Your task to perform on an android device: Is it going to rain this weekend? Image 0: 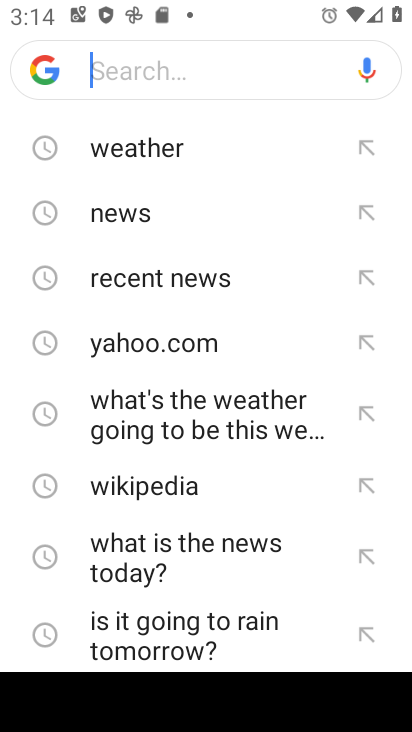
Step 0: press back button
Your task to perform on an android device: Is it going to rain this weekend? Image 1: 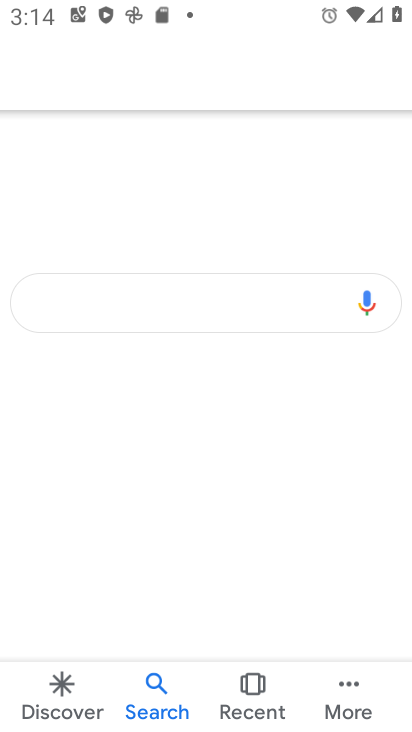
Step 1: click (200, 292)
Your task to perform on an android device: Is it going to rain this weekend? Image 2: 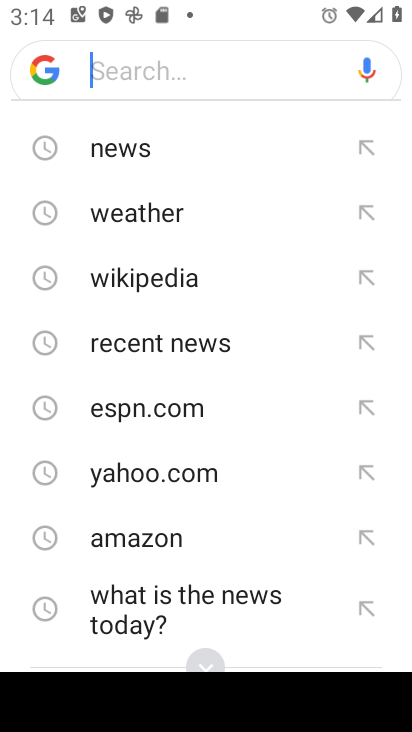
Step 2: click (202, 203)
Your task to perform on an android device: Is it going to rain this weekend? Image 3: 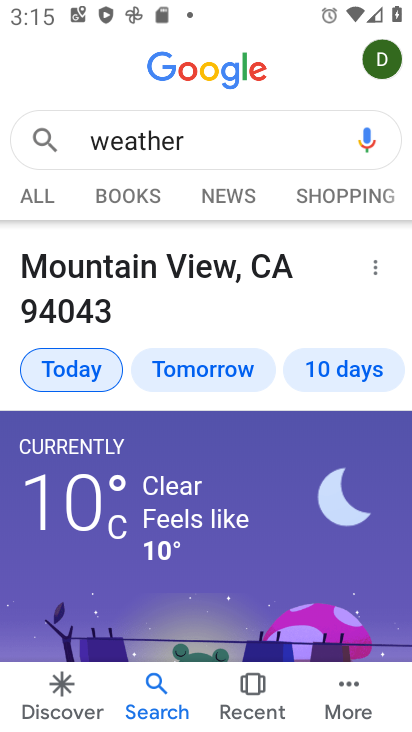
Step 3: click (355, 377)
Your task to perform on an android device: Is it going to rain this weekend? Image 4: 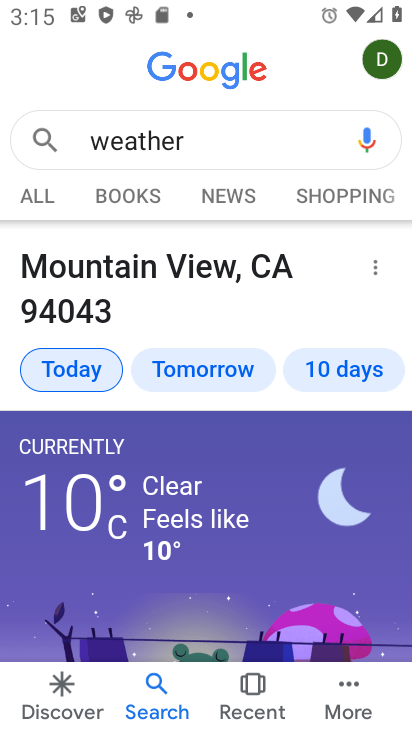
Step 4: click (304, 356)
Your task to perform on an android device: Is it going to rain this weekend? Image 5: 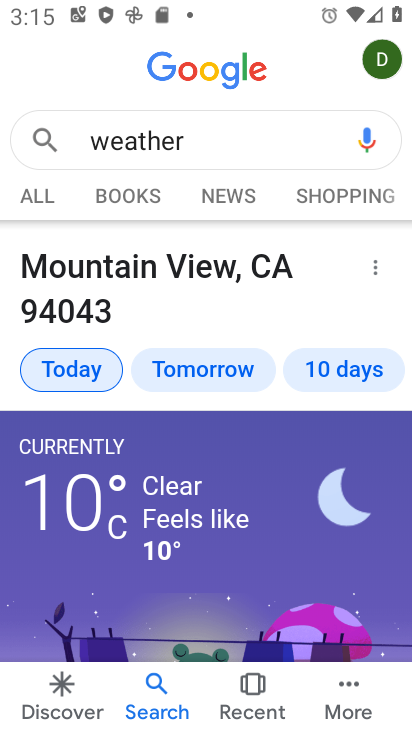
Step 5: click (304, 356)
Your task to perform on an android device: Is it going to rain this weekend? Image 6: 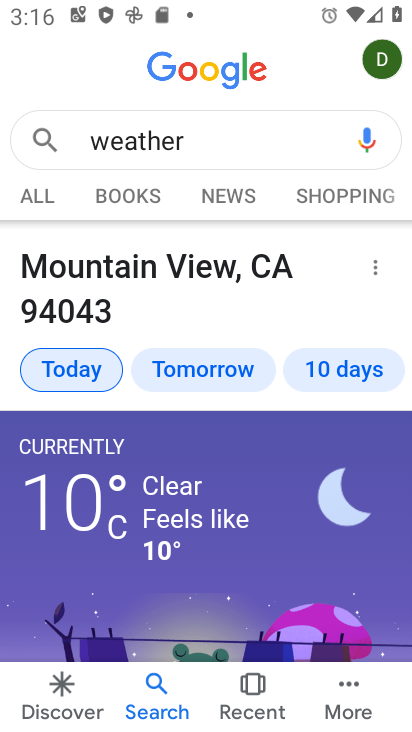
Step 6: click (338, 365)
Your task to perform on an android device: Is it going to rain this weekend? Image 7: 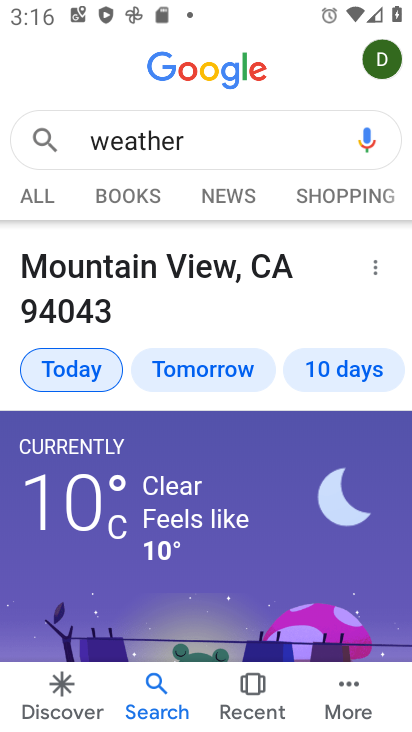
Step 7: click (338, 365)
Your task to perform on an android device: Is it going to rain this weekend? Image 8: 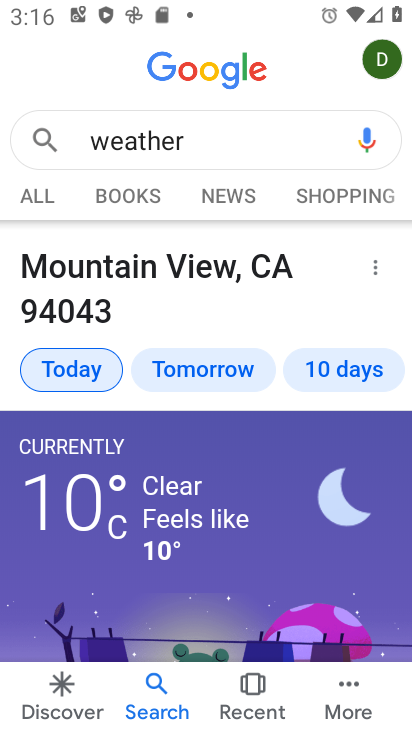
Step 8: click (338, 365)
Your task to perform on an android device: Is it going to rain this weekend? Image 9: 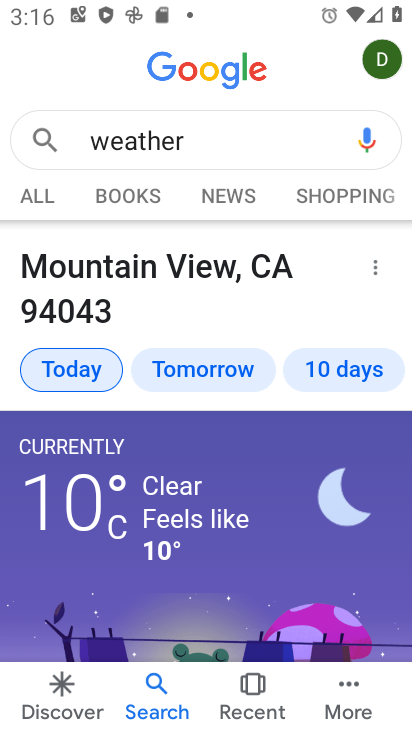
Step 9: click (338, 365)
Your task to perform on an android device: Is it going to rain this weekend? Image 10: 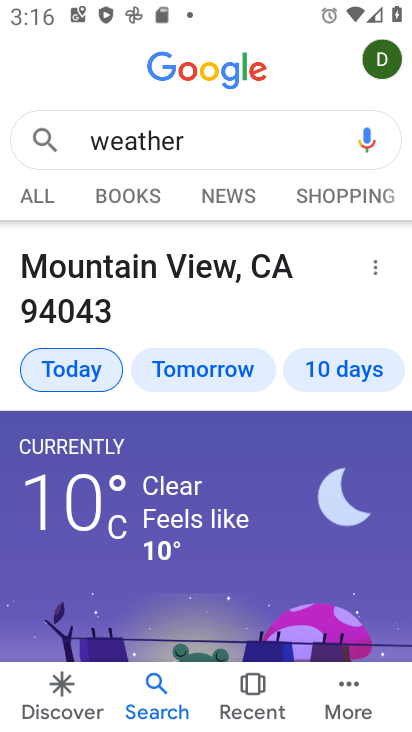
Step 10: click (338, 365)
Your task to perform on an android device: Is it going to rain this weekend? Image 11: 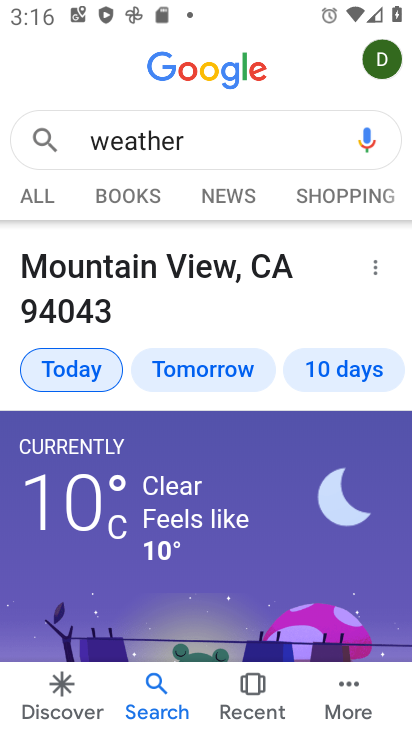
Step 11: click (338, 365)
Your task to perform on an android device: Is it going to rain this weekend? Image 12: 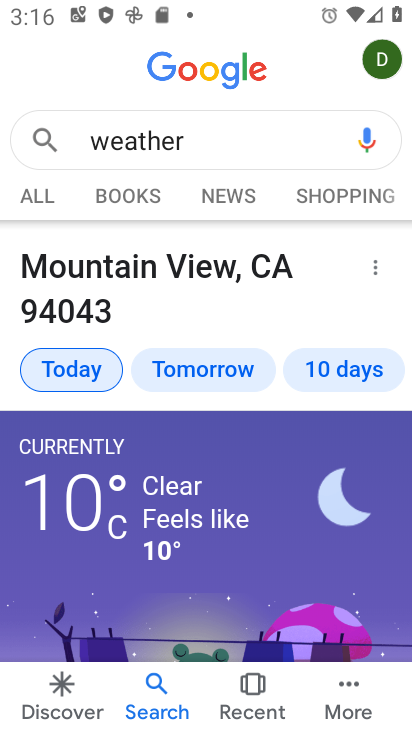
Step 12: task complete